Your task to perform on an android device: Search for vegetarian restaurants on Maps Image 0: 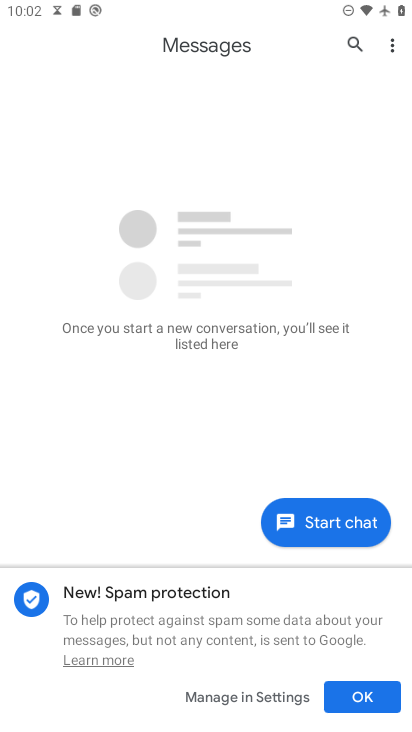
Step 0: press home button
Your task to perform on an android device: Search for vegetarian restaurants on Maps Image 1: 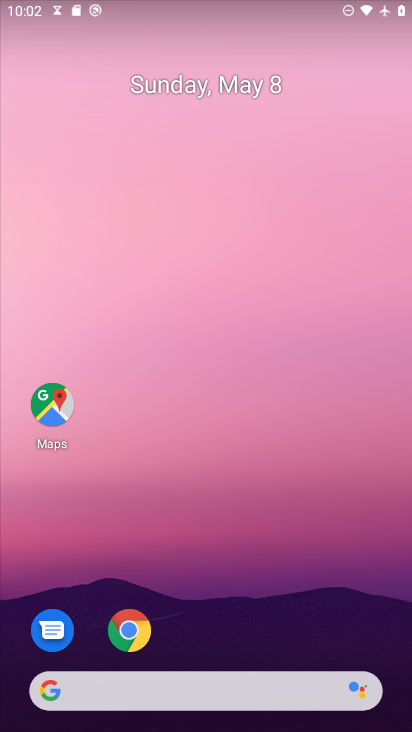
Step 1: drag from (154, 677) to (270, 247)
Your task to perform on an android device: Search for vegetarian restaurants on Maps Image 2: 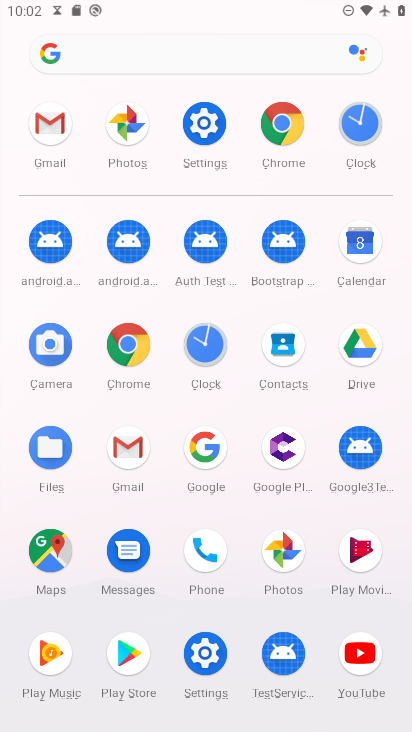
Step 2: click (49, 559)
Your task to perform on an android device: Search for vegetarian restaurants on Maps Image 3: 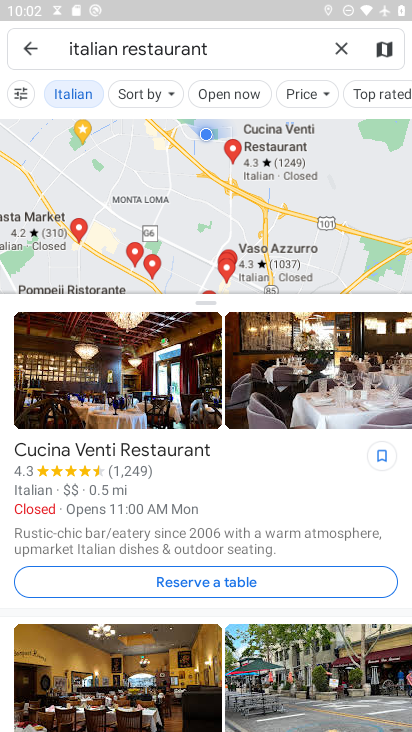
Step 3: click (341, 42)
Your task to perform on an android device: Search for vegetarian restaurants on Maps Image 4: 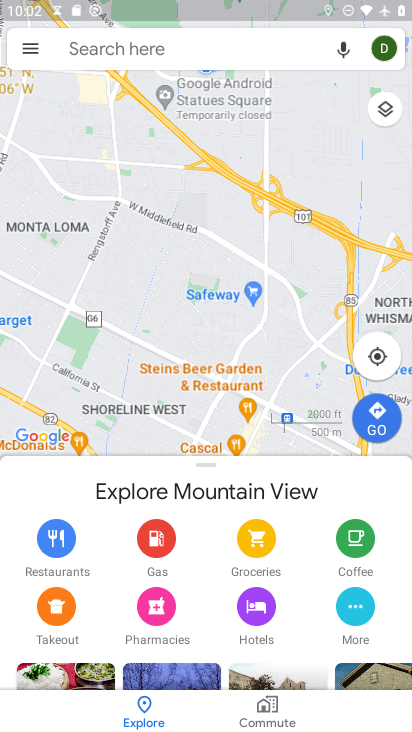
Step 4: click (171, 40)
Your task to perform on an android device: Search for vegetarian restaurants on Maps Image 5: 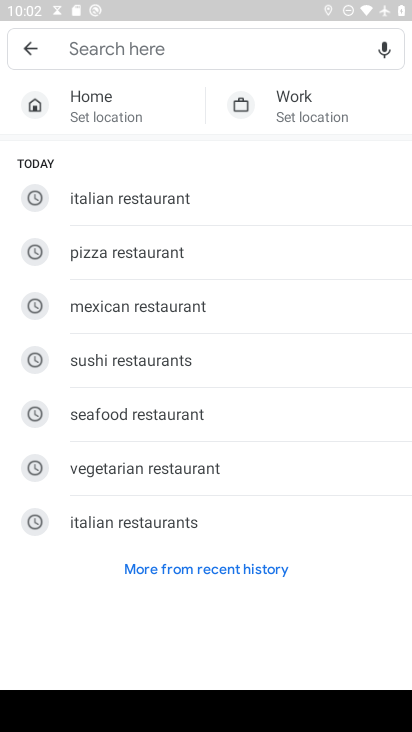
Step 5: click (105, 470)
Your task to perform on an android device: Search for vegetarian restaurants on Maps Image 6: 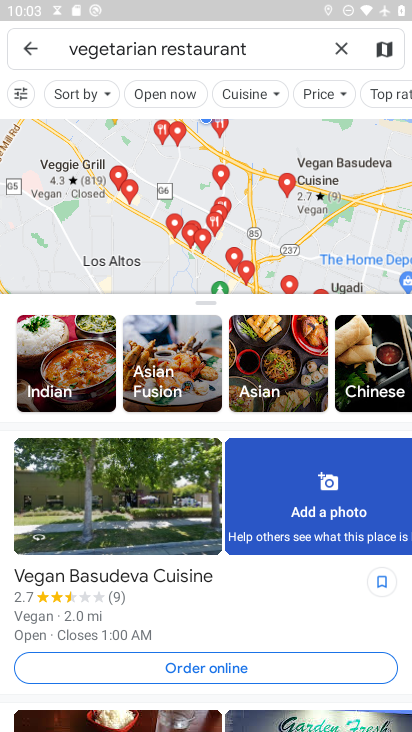
Step 6: task complete